Your task to perform on an android device: toggle javascript in the chrome app Image 0: 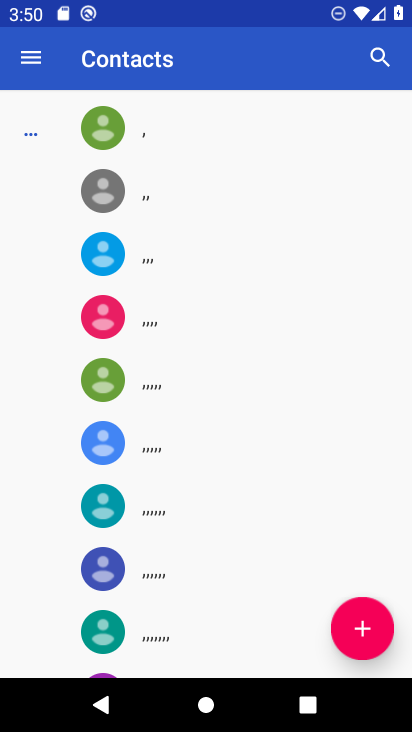
Step 0: press home button
Your task to perform on an android device: toggle javascript in the chrome app Image 1: 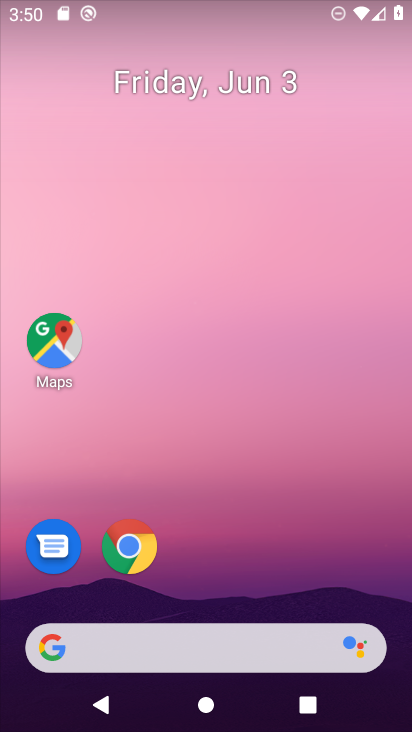
Step 1: click (134, 554)
Your task to perform on an android device: toggle javascript in the chrome app Image 2: 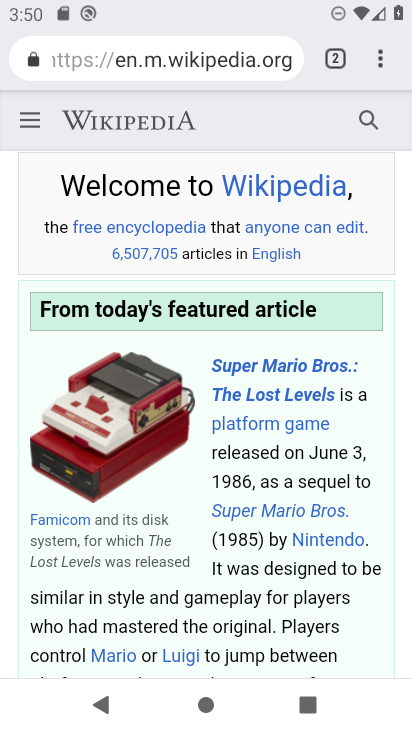
Step 2: click (376, 57)
Your task to perform on an android device: toggle javascript in the chrome app Image 3: 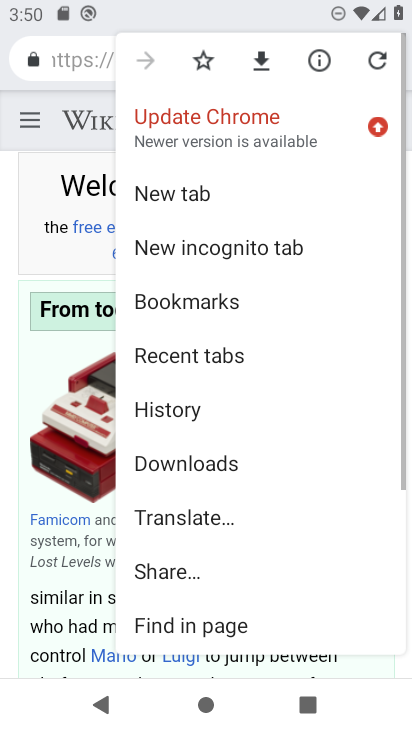
Step 3: drag from (258, 449) to (251, 155)
Your task to perform on an android device: toggle javascript in the chrome app Image 4: 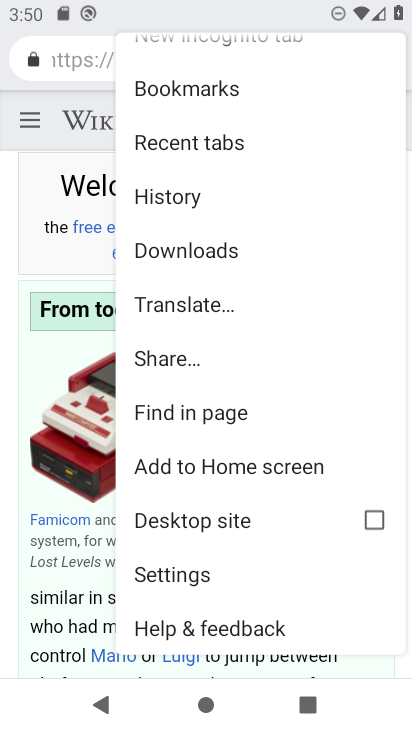
Step 4: click (196, 569)
Your task to perform on an android device: toggle javascript in the chrome app Image 5: 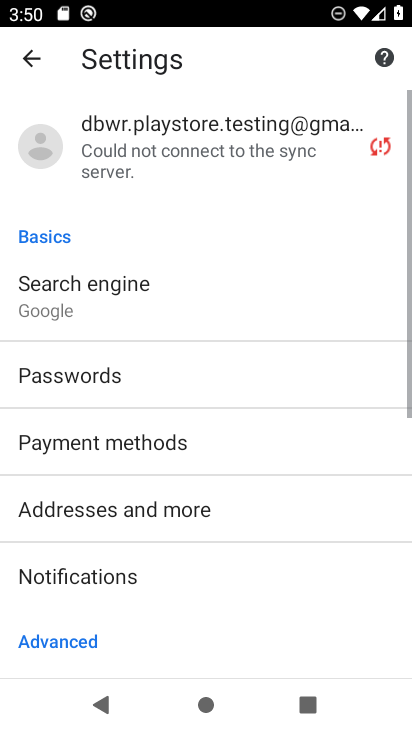
Step 5: drag from (227, 531) to (225, 195)
Your task to perform on an android device: toggle javascript in the chrome app Image 6: 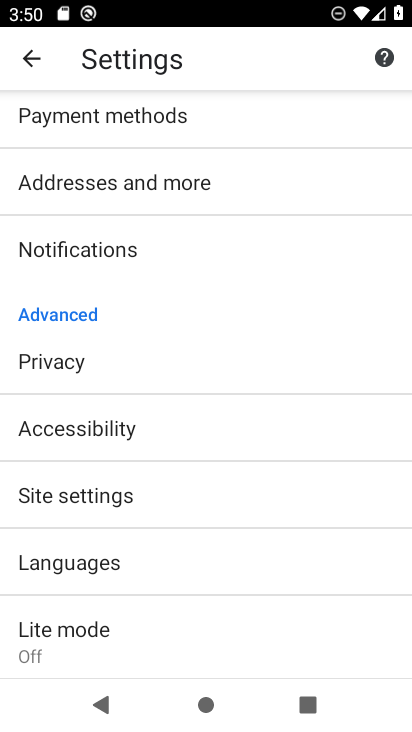
Step 6: click (197, 501)
Your task to perform on an android device: toggle javascript in the chrome app Image 7: 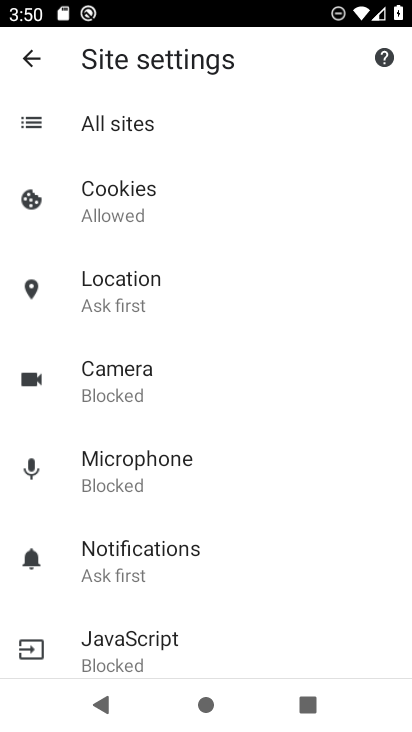
Step 7: click (201, 650)
Your task to perform on an android device: toggle javascript in the chrome app Image 8: 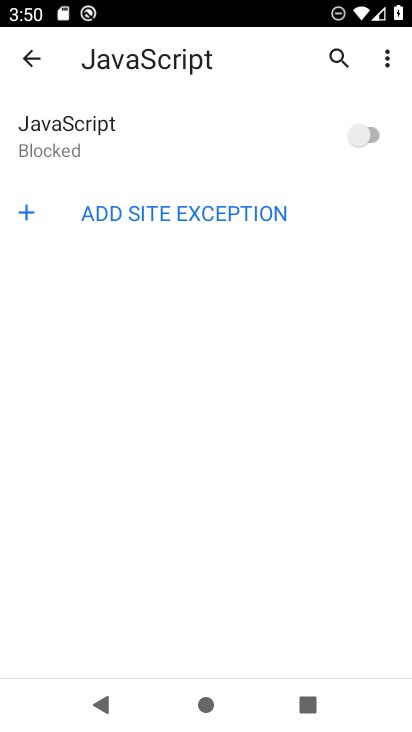
Step 8: click (366, 124)
Your task to perform on an android device: toggle javascript in the chrome app Image 9: 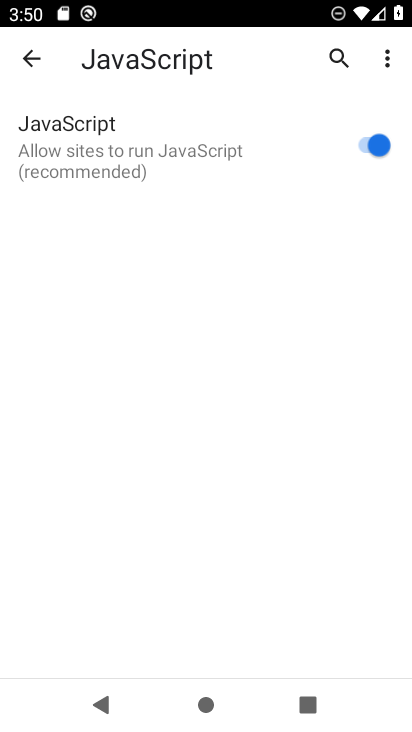
Step 9: task complete